Your task to perform on an android device: change the upload size in google photos Image 0: 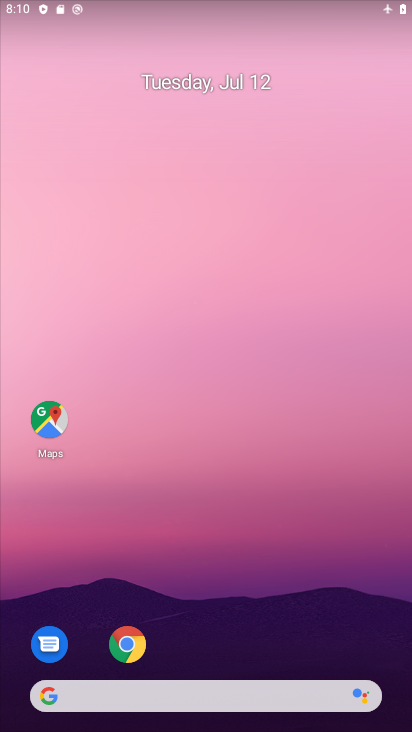
Step 0: drag from (222, 644) to (146, 194)
Your task to perform on an android device: change the upload size in google photos Image 1: 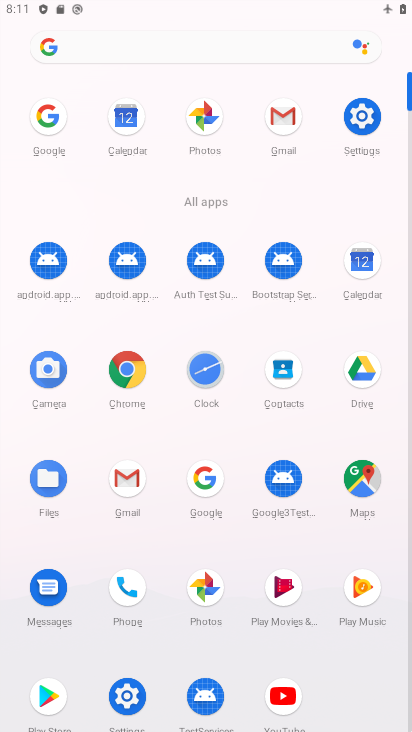
Step 1: click (206, 130)
Your task to perform on an android device: change the upload size in google photos Image 2: 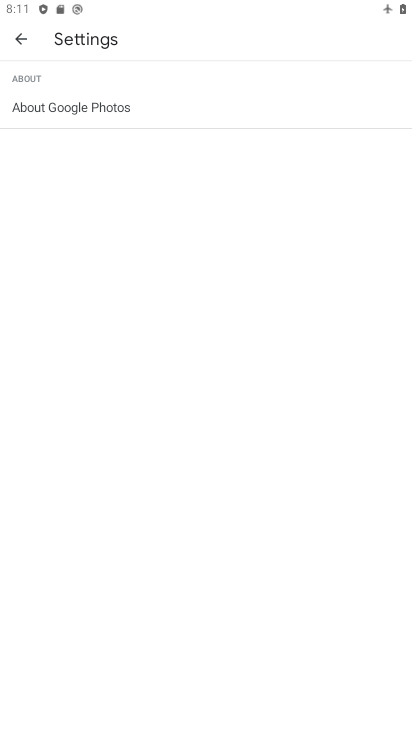
Step 2: click (32, 41)
Your task to perform on an android device: change the upload size in google photos Image 3: 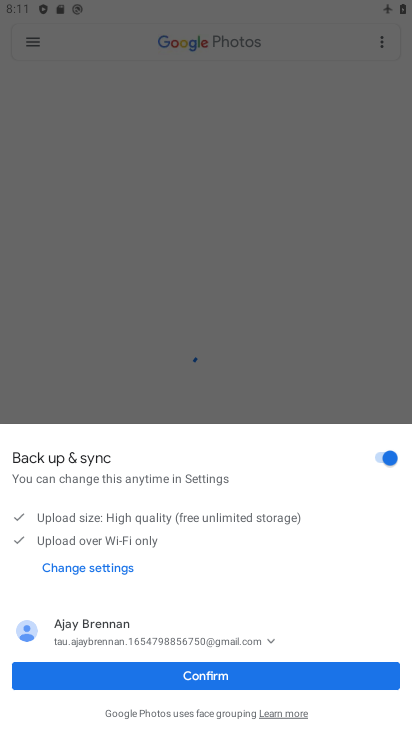
Step 3: click (254, 676)
Your task to perform on an android device: change the upload size in google photos Image 4: 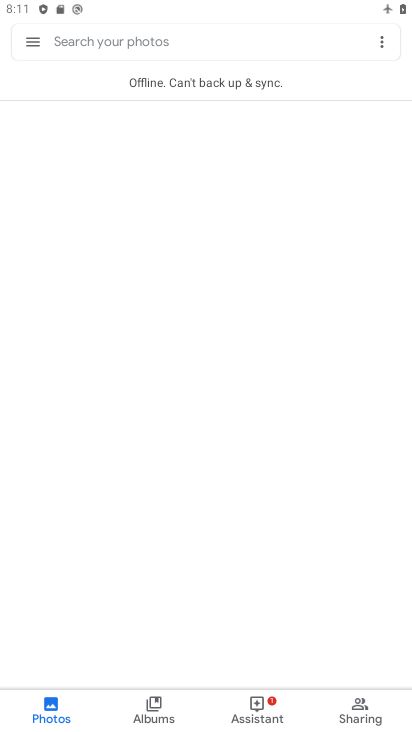
Step 4: click (28, 44)
Your task to perform on an android device: change the upload size in google photos Image 5: 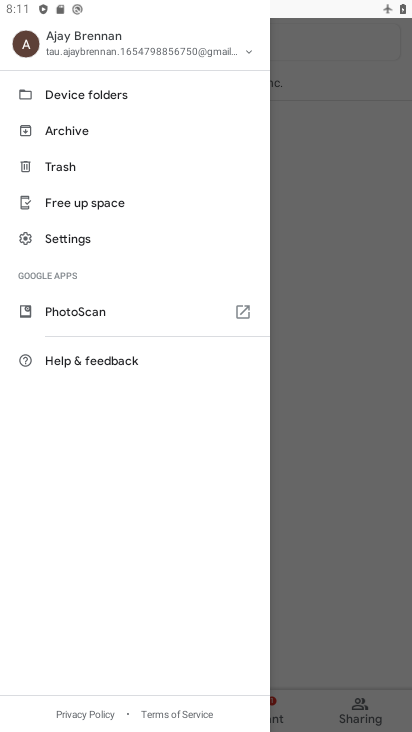
Step 5: click (56, 245)
Your task to perform on an android device: change the upload size in google photos Image 6: 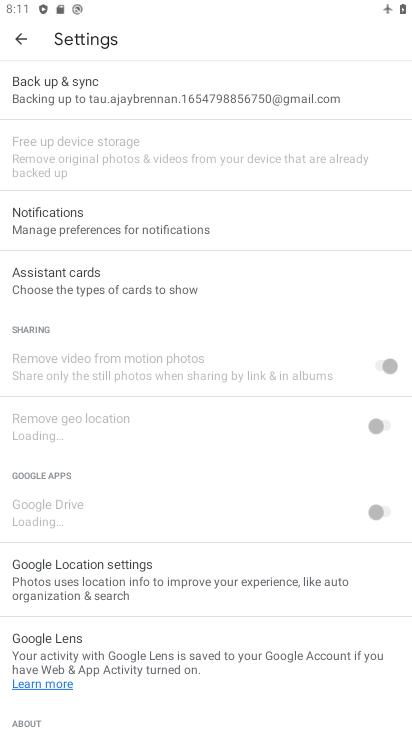
Step 6: click (167, 73)
Your task to perform on an android device: change the upload size in google photos Image 7: 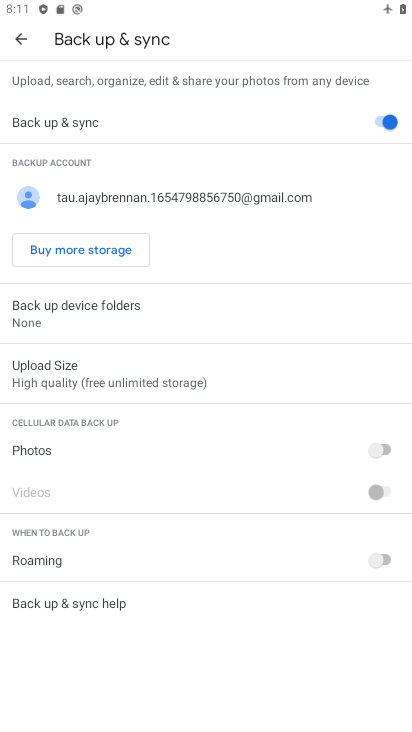
Step 7: click (130, 390)
Your task to perform on an android device: change the upload size in google photos Image 8: 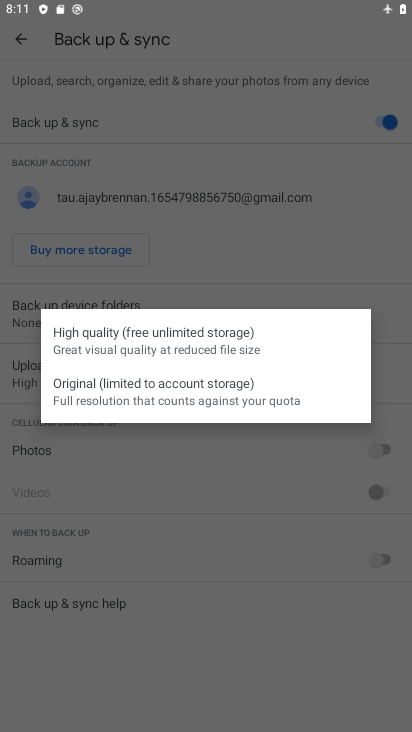
Step 8: click (130, 390)
Your task to perform on an android device: change the upload size in google photos Image 9: 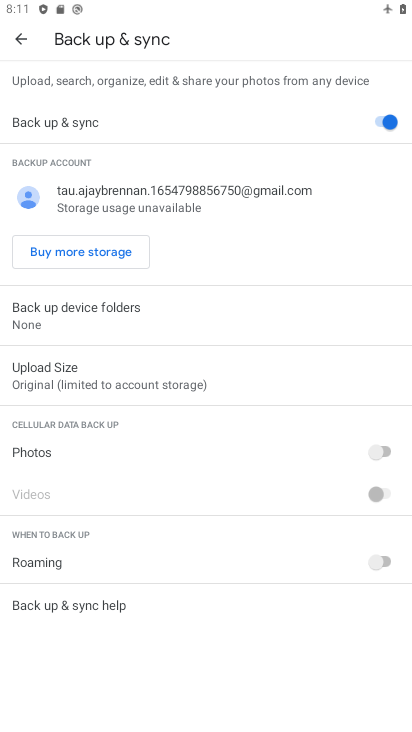
Step 9: task complete